Your task to perform on an android device: toggle location history Image 0: 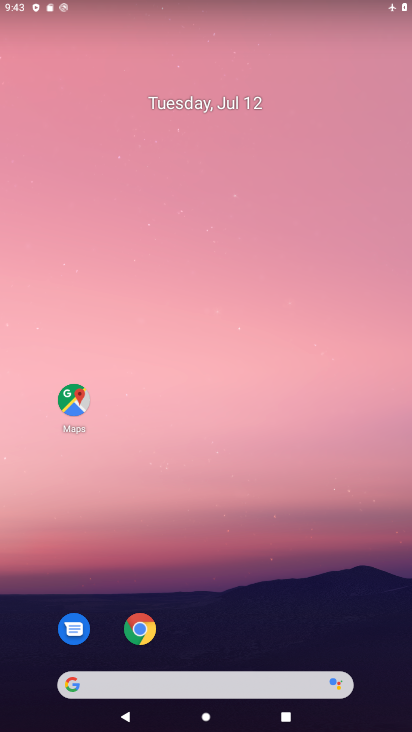
Step 0: drag from (296, 679) to (346, 7)
Your task to perform on an android device: toggle location history Image 1: 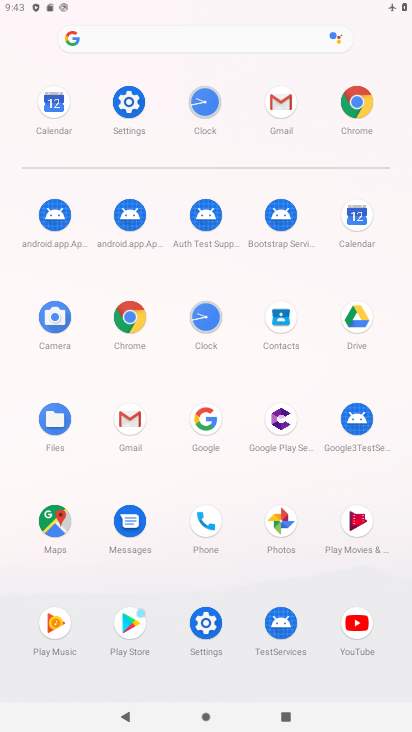
Step 1: click (133, 103)
Your task to perform on an android device: toggle location history Image 2: 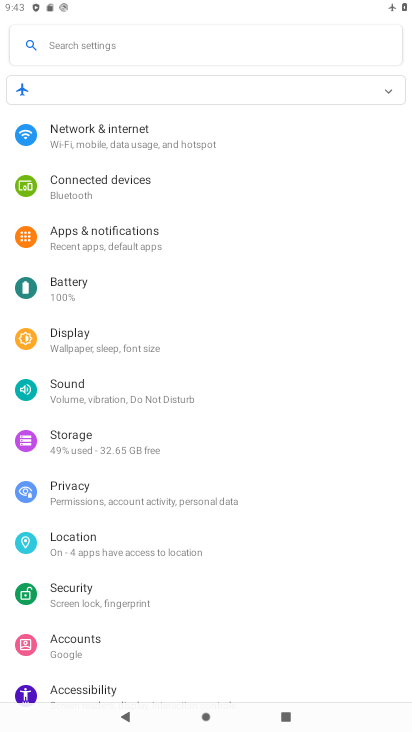
Step 2: click (150, 547)
Your task to perform on an android device: toggle location history Image 3: 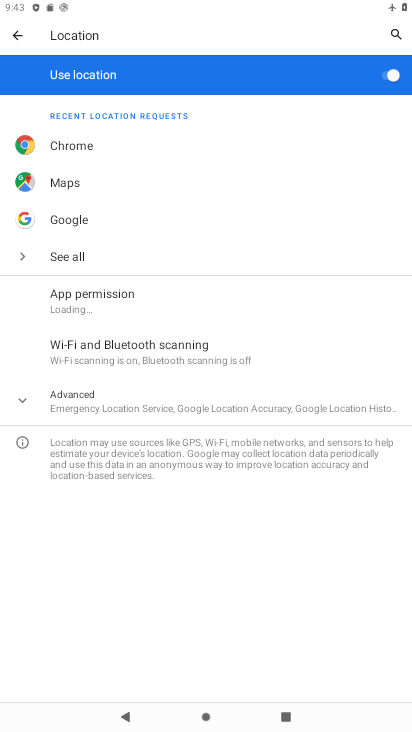
Step 3: click (116, 404)
Your task to perform on an android device: toggle location history Image 4: 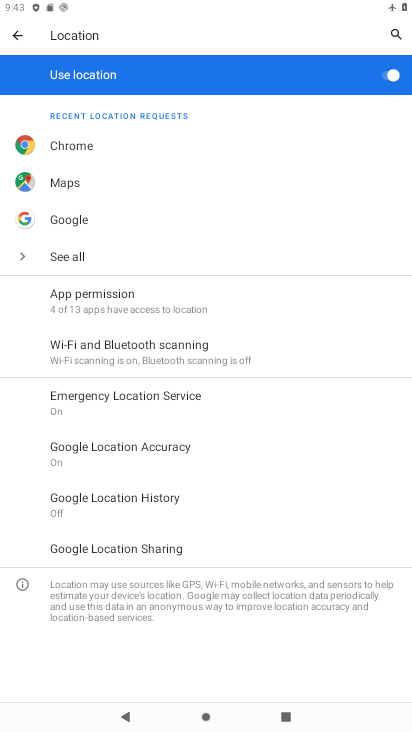
Step 4: click (168, 503)
Your task to perform on an android device: toggle location history Image 5: 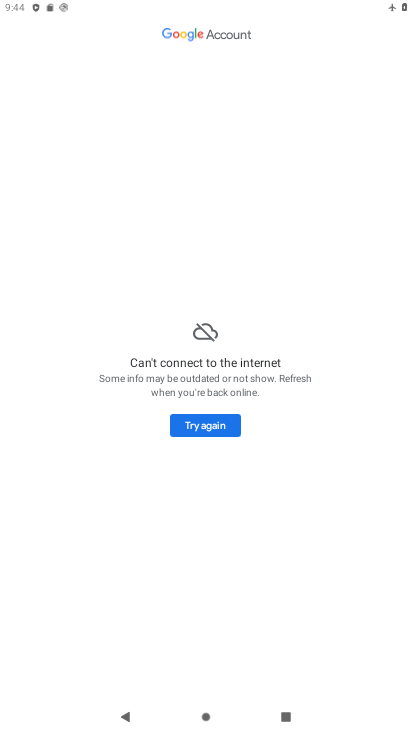
Step 5: task complete